Your task to perform on an android device: turn pop-ups on in chrome Image 0: 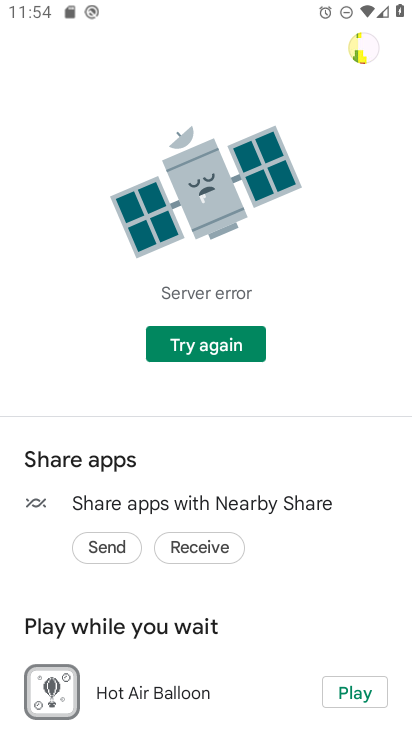
Step 0: press home button
Your task to perform on an android device: turn pop-ups on in chrome Image 1: 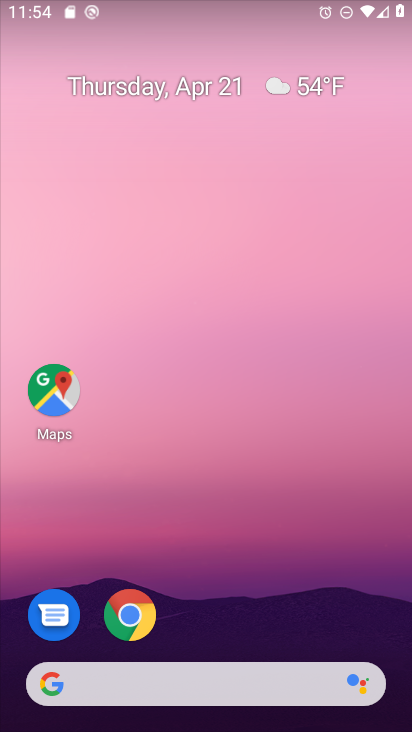
Step 1: click (122, 623)
Your task to perform on an android device: turn pop-ups on in chrome Image 2: 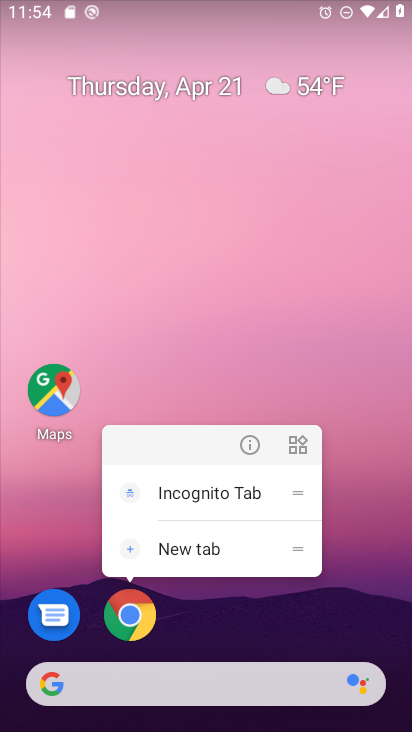
Step 2: click (132, 598)
Your task to perform on an android device: turn pop-ups on in chrome Image 3: 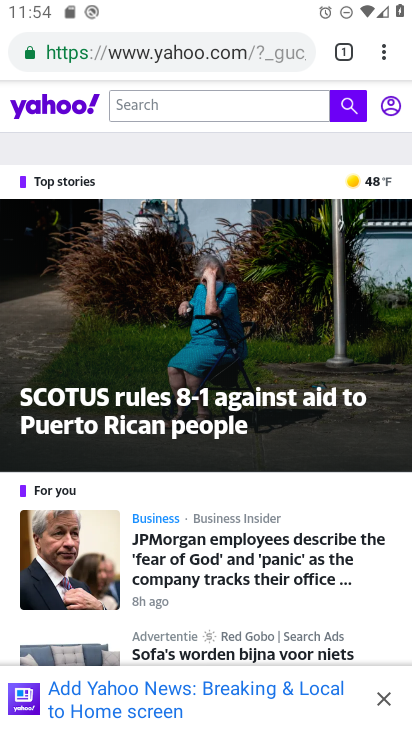
Step 3: click (382, 53)
Your task to perform on an android device: turn pop-ups on in chrome Image 4: 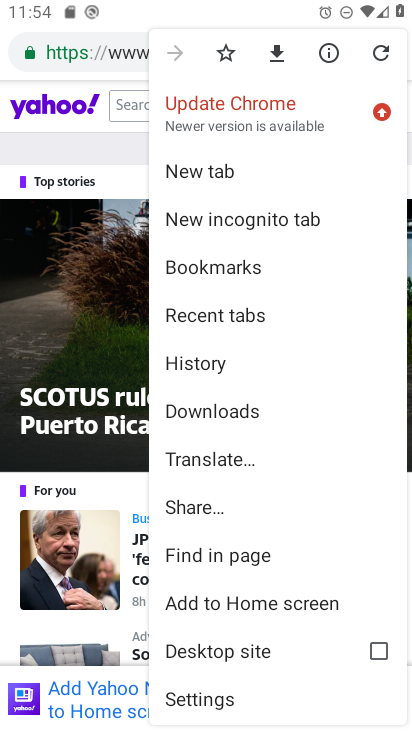
Step 4: click (284, 697)
Your task to perform on an android device: turn pop-ups on in chrome Image 5: 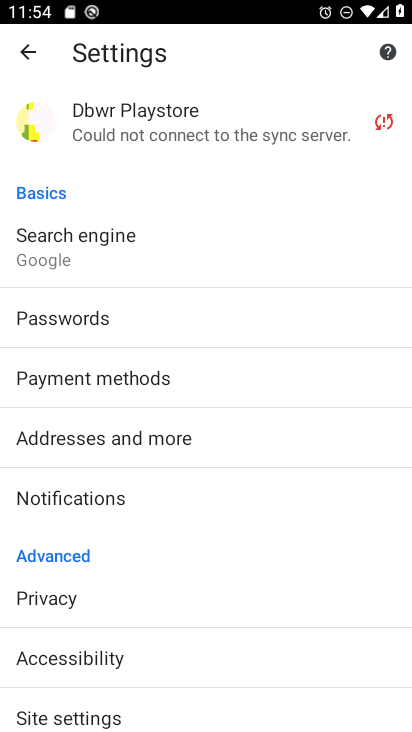
Step 5: click (121, 708)
Your task to perform on an android device: turn pop-ups on in chrome Image 6: 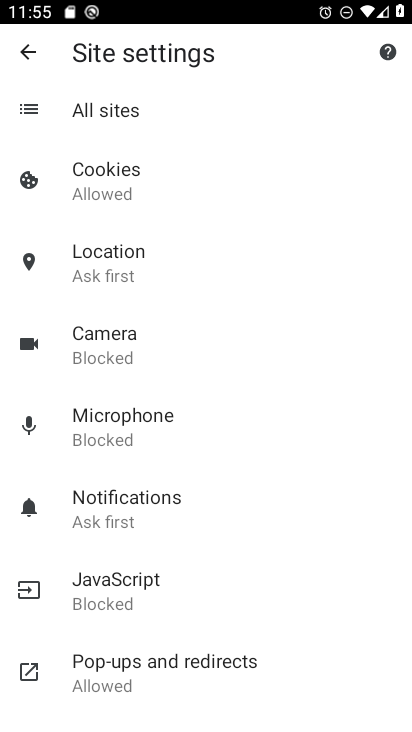
Step 6: click (151, 661)
Your task to perform on an android device: turn pop-ups on in chrome Image 7: 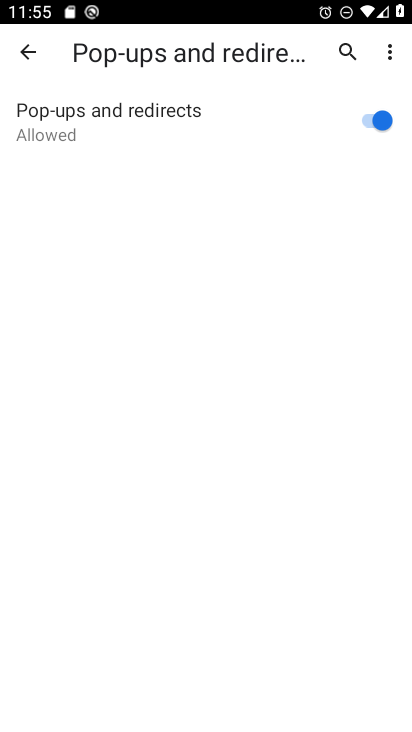
Step 7: task complete